Your task to perform on an android device: Open eBay Image 0: 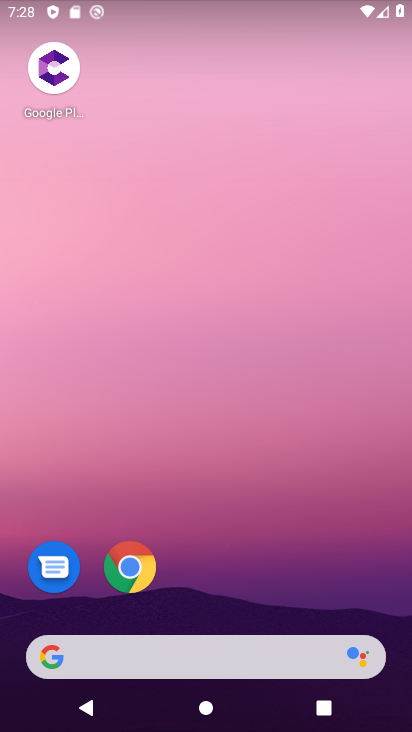
Step 0: click (200, 660)
Your task to perform on an android device: Open eBay Image 1: 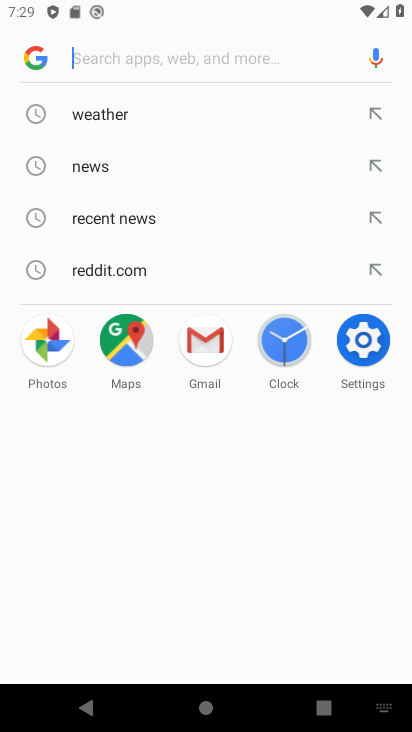
Step 1: type "ebay"
Your task to perform on an android device: Open eBay Image 2: 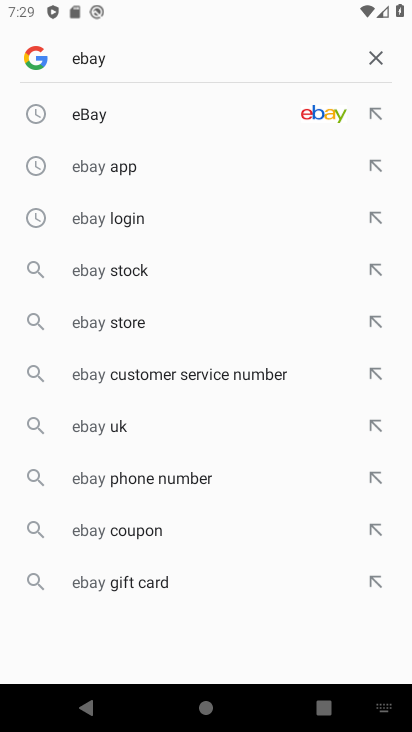
Step 2: click (361, 110)
Your task to perform on an android device: Open eBay Image 3: 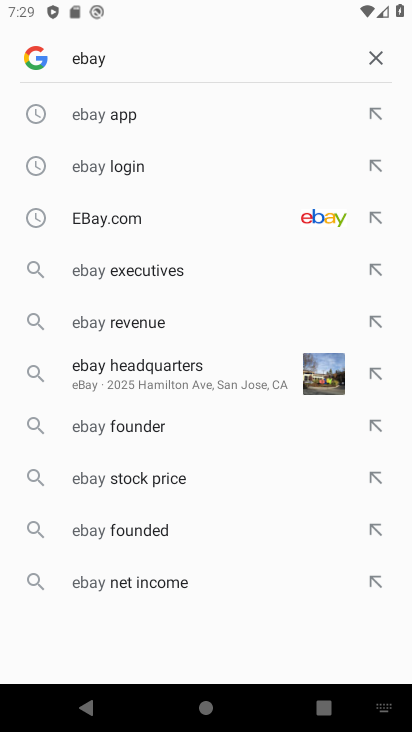
Step 3: click (219, 209)
Your task to perform on an android device: Open eBay Image 4: 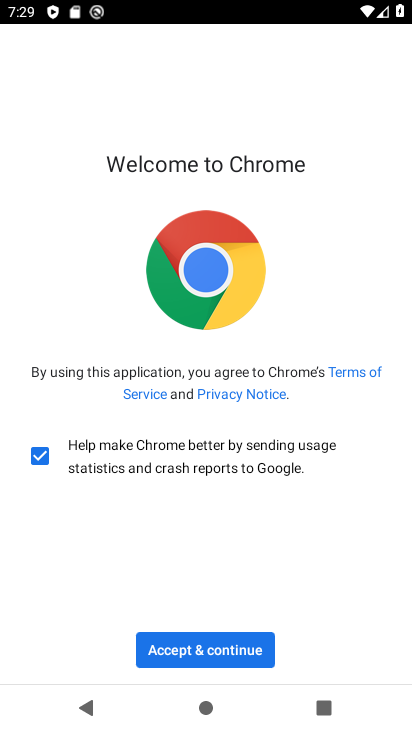
Step 4: click (168, 645)
Your task to perform on an android device: Open eBay Image 5: 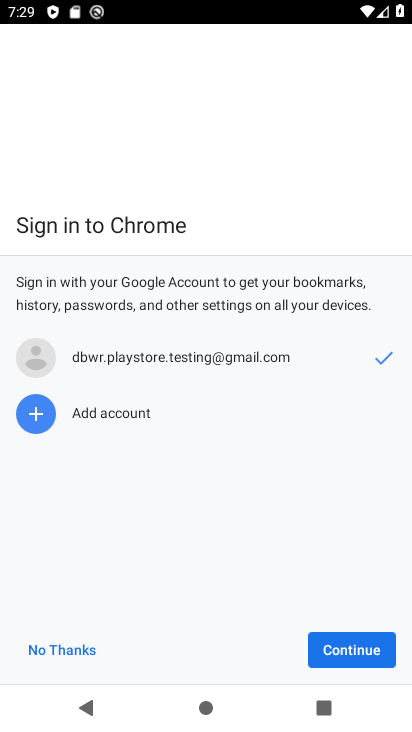
Step 5: click (327, 647)
Your task to perform on an android device: Open eBay Image 6: 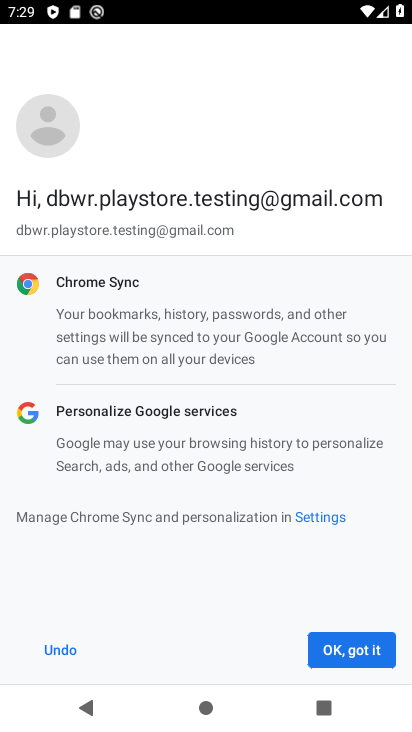
Step 6: click (327, 647)
Your task to perform on an android device: Open eBay Image 7: 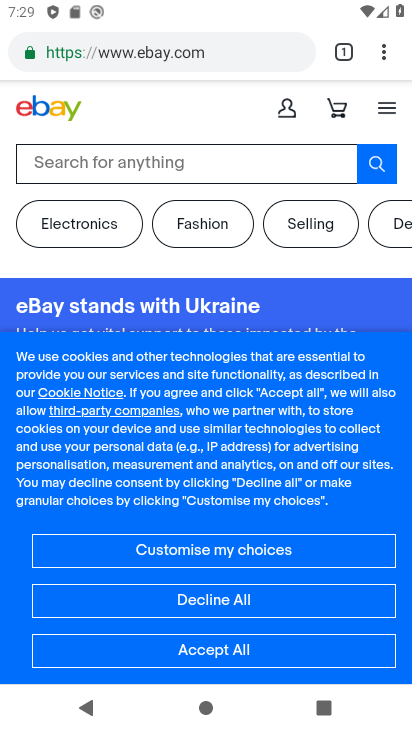
Step 7: task complete